Your task to perform on an android device: Search for the best rated 4K TV on Best Buy. Image 0: 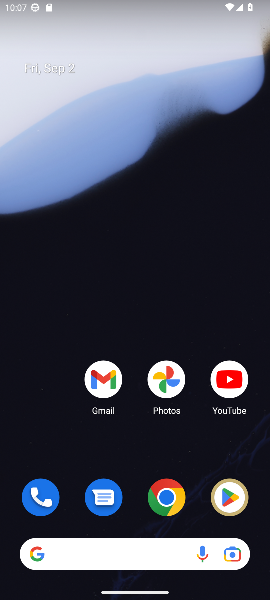
Step 0: drag from (130, 512) to (112, 219)
Your task to perform on an android device: Search for the best rated 4K TV on Best Buy. Image 1: 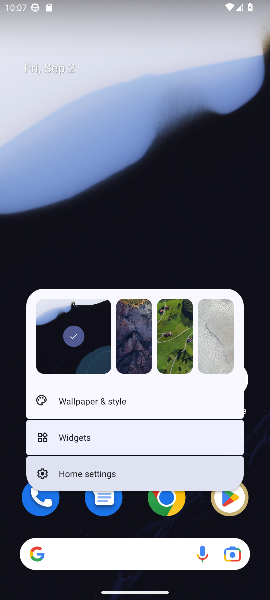
Step 1: click (133, 512)
Your task to perform on an android device: Search for the best rated 4K TV on Best Buy. Image 2: 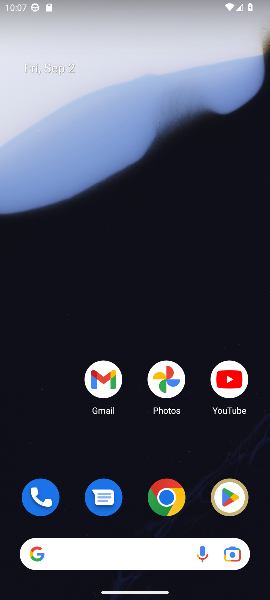
Step 2: click (45, 206)
Your task to perform on an android device: Search for the best rated 4K TV on Best Buy. Image 3: 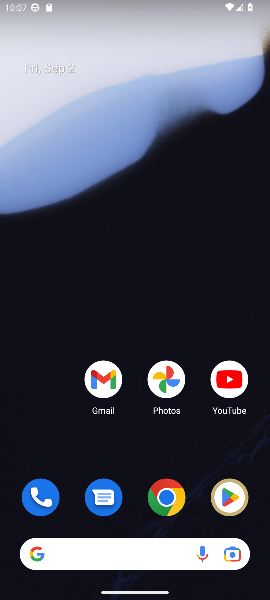
Step 3: drag from (136, 337) to (170, 24)
Your task to perform on an android device: Search for the best rated 4K TV on Best Buy. Image 4: 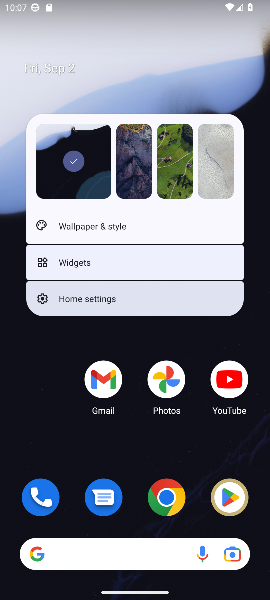
Step 4: click (137, 516)
Your task to perform on an android device: Search for the best rated 4K TV on Best Buy. Image 5: 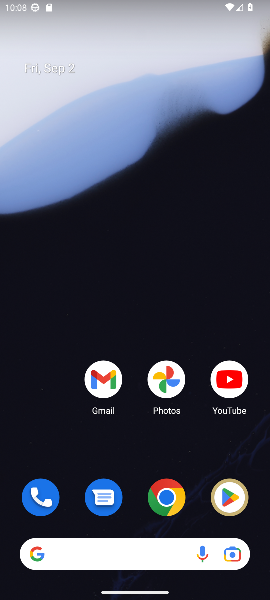
Step 5: click (126, 475)
Your task to perform on an android device: Search for the best rated 4K TV on Best Buy. Image 6: 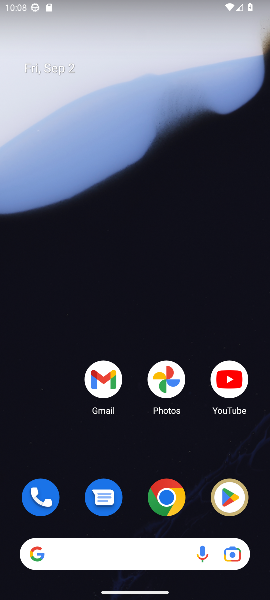
Step 6: drag from (134, 500) to (89, 97)
Your task to perform on an android device: Search for the best rated 4K TV on Best Buy. Image 7: 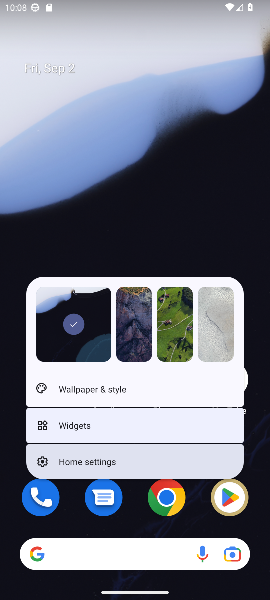
Step 7: drag from (136, 357) to (115, 58)
Your task to perform on an android device: Search for the best rated 4K TV on Best Buy. Image 8: 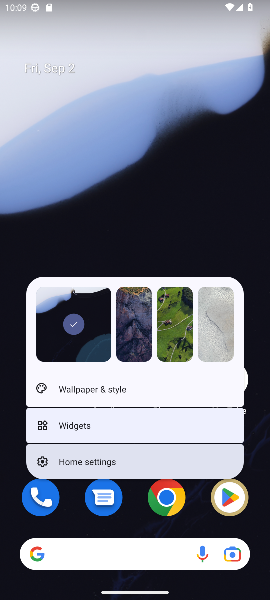
Step 8: click (130, 562)
Your task to perform on an android device: Search for the best rated 4K TV on Best Buy. Image 9: 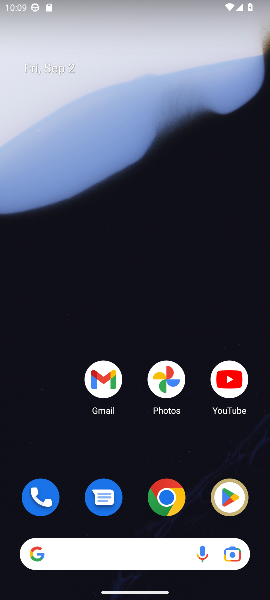
Step 9: drag from (139, 508) to (74, 91)
Your task to perform on an android device: Search for the best rated 4K TV on Best Buy. Image 10: 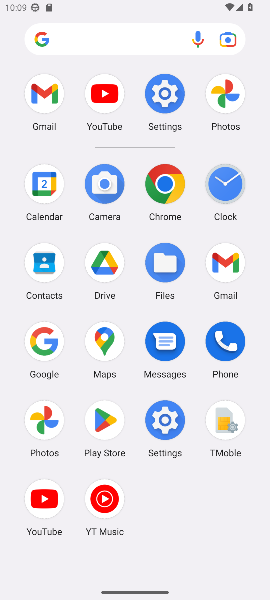
Step 10: drag from (130, 515) to (106, 195)
Your task to perform on an android device: Search for the best rated 4K TV on Best Buy. Image 11: 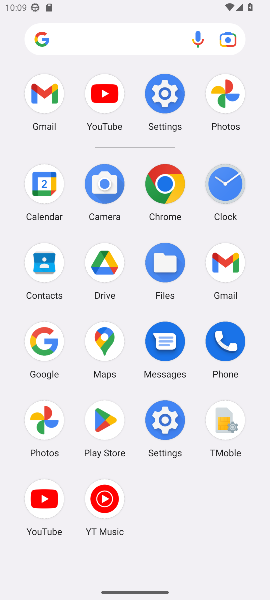
Step 11: click (36, 348)
Your task to perform on an android device: Search for the best rated 4K TV on Best Buy. Image 12: 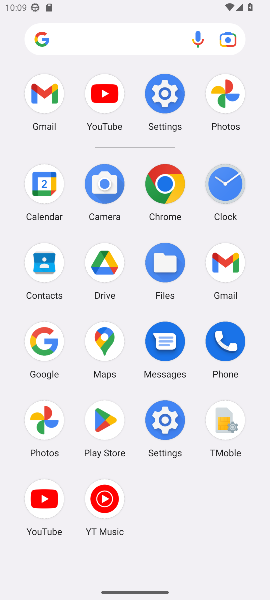
Step 12: click (42, 348)
Your task to perform on an android device: Search for the best rated 4K TV on Best Buy. Image 13: 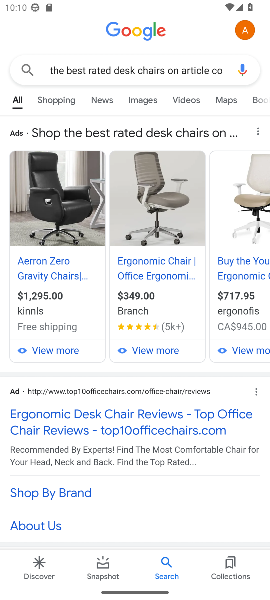
Step 13: click (47, 343)
Your task to perform on an android device: Search for the best rated 4K TV on Best Buy. Image 14: 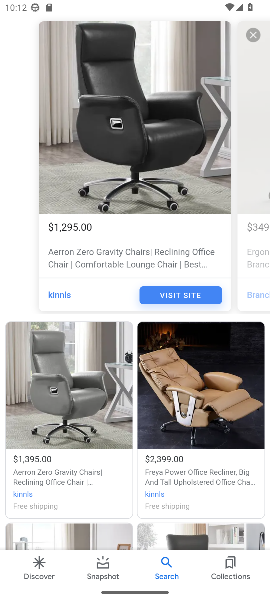
Step 14: press back button
Your task to perform on an android device: Search for the best rated 4K TV on Best Buy. Image 15: 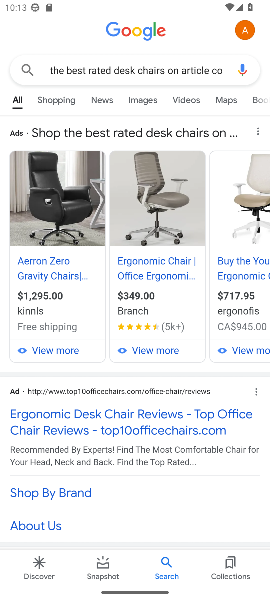
Step 15: click (218, 64)
Your task to perform on an android device: Search for the best rated 4K TV on Best Buy. Image 16: 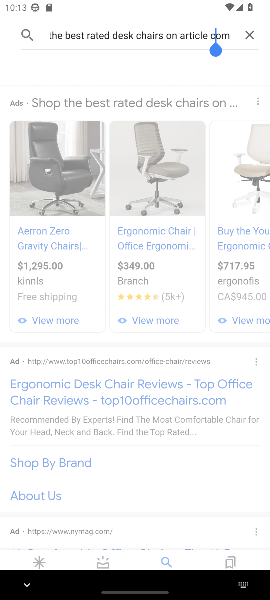
Step 16: click (201, 72)
Your task to perform on an android device: Search for the best rated 4K TV on Best Buy. Image 17: 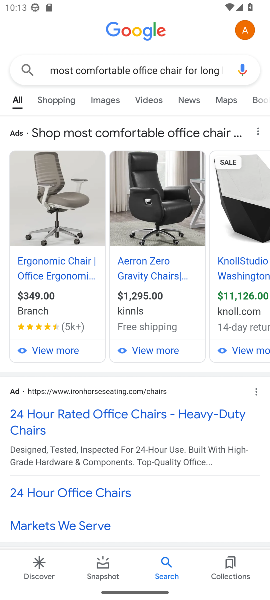
Step 17: click (179, 68)
Your task to perform on an android device: Search for the best rated 4K TV on Best Buy. Image 18: 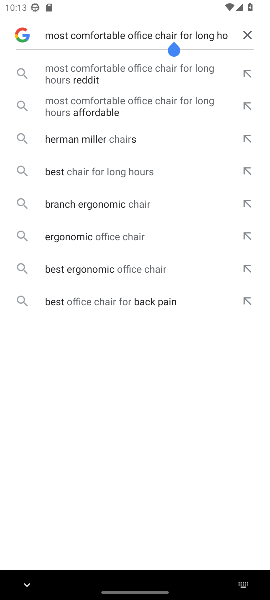
Step 18: click (199, 68)
Your task to perform on an android device: Search for the best rated 4K TV on Best Buy. Image 19: 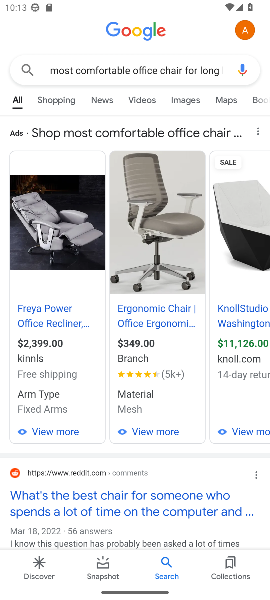
Step 19: click (185, 41)
Your task to perform on an android device: Search for the best rated 4K TV on Best Buy. Image 20: 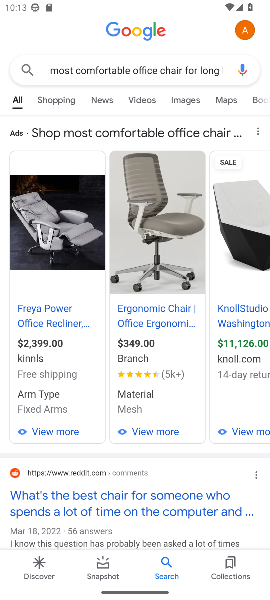
Step 20: click (166, 67)
Your task to perform on an android device: Search for the best rated 4K TV on Best Buy. Image 21: 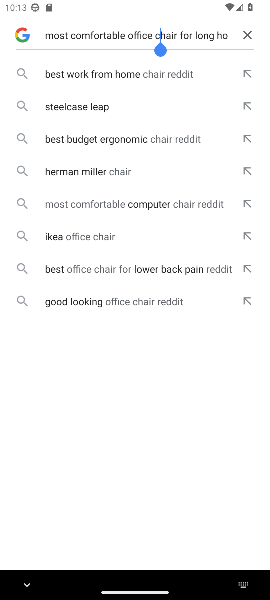
Step 21: click (135, 75)
Your task to perform on an android device: Search for the best rated 4K TV on Best Buy. Image 22: 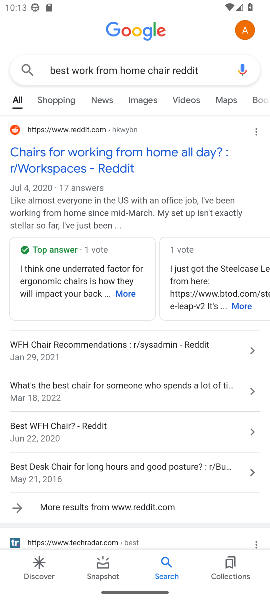
Step 22: click (246, 30)
Your task to perform on an android device: Search for the best rated 4K TV on Best Buy. Image 23: 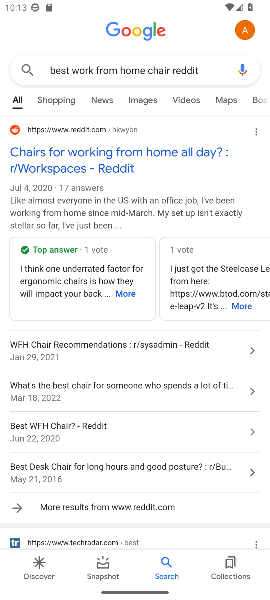
Step 23: click (200, 68)
Your task to perform on an android device: Search for the best rated 4K TV on Best Buy. Image 24: 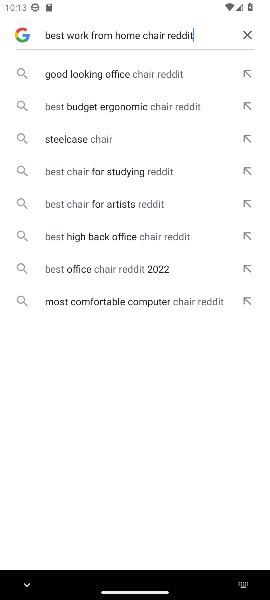
Step 24: click (246, 31)
Your task to perform on an android device: Search for the best rated 4K TV on Best Buy. Image 25: 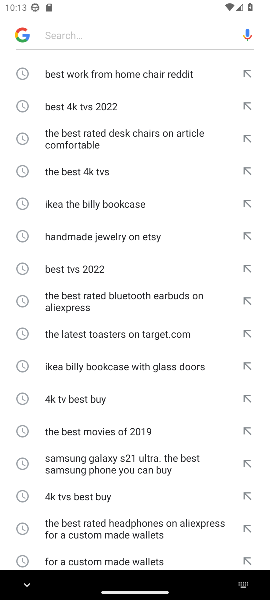
Step 25: type "4K TV on Best Buy"
Your task to perform on an android device: Search for the best rated 4K TV on Best Buy. Image 26: 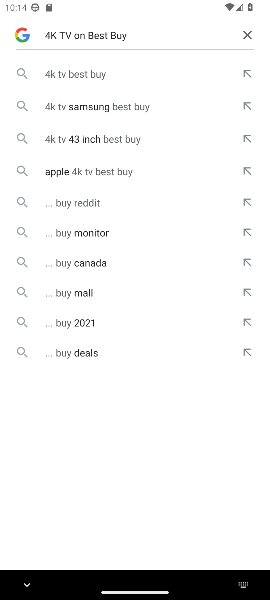
Step 26: click (64, 75)
Your task to perform on an android device: Search for the best rated 4K TV on Best Buy. Image 27: 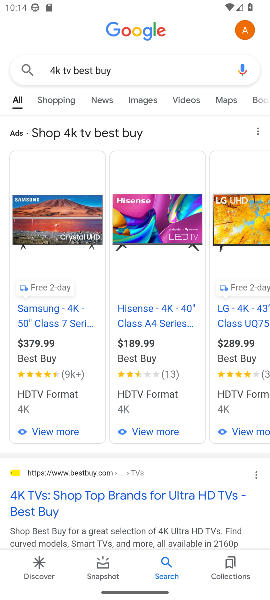
Step 27: task complete